Your task to perform on an android device: remove spam from my inbox in the gmail app Image 0: 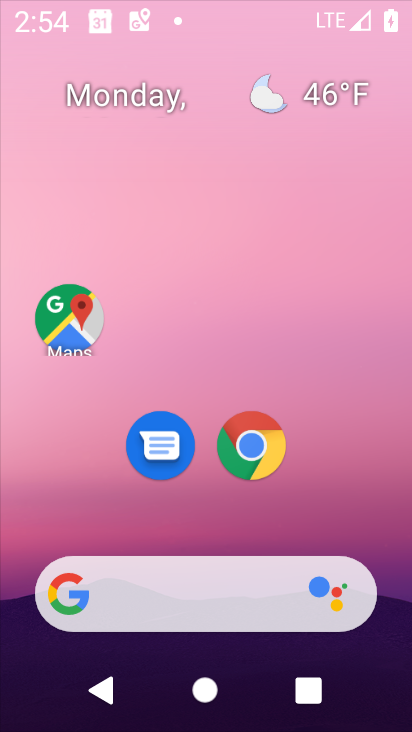
Step 0: drag from (339, 381) to (311, 164)
Your task to perform on an android device: remove spam from my inbox in the gmail app Image 1: 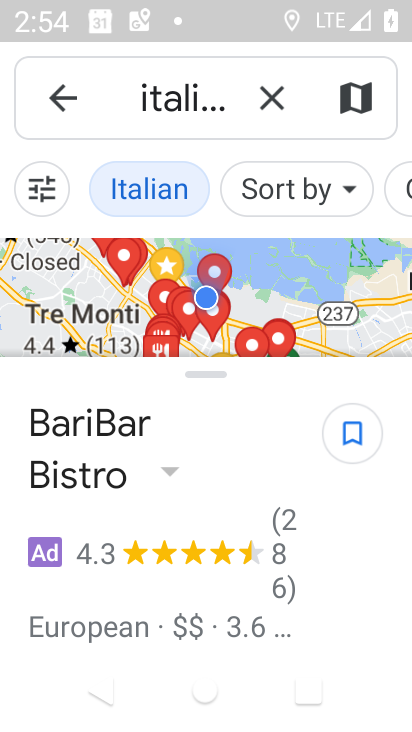
Step 1: press home button
Your task to perform on an android device: remove spam from my inbox in the gmail app Image 2: 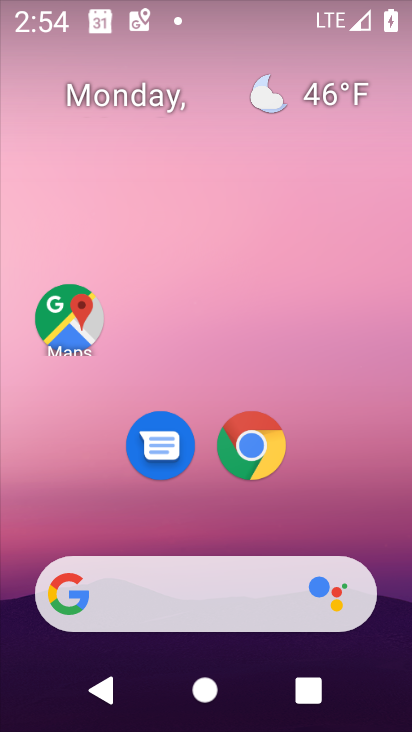
Step 2: drag from (302, 501) to (343, 121)
Your task to perform on an android device: remove spam from my inbox in the gmail app Image 3: 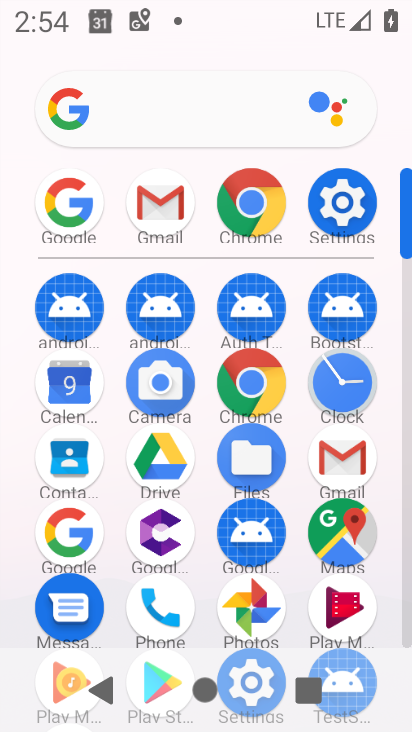
Step 3: drag from (295, 534) to (277, 220)
Your task to perform on an android device: remove spam from my inbox in the gmail app Image 4: 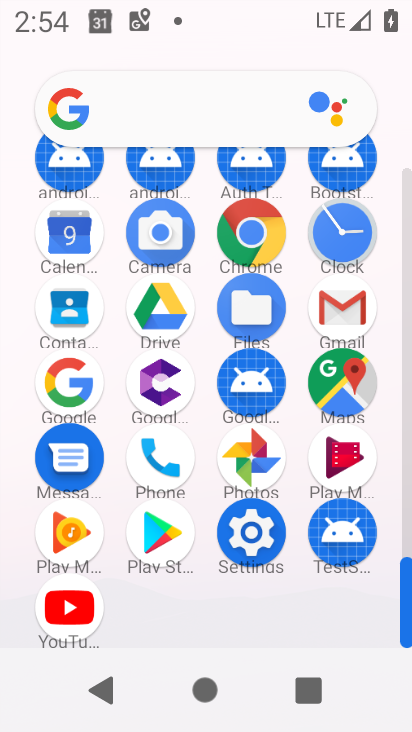
Step 4: click (352, 308)
Your task to perform on an android device: remove spam from my inbox in the gmail app Image 5: 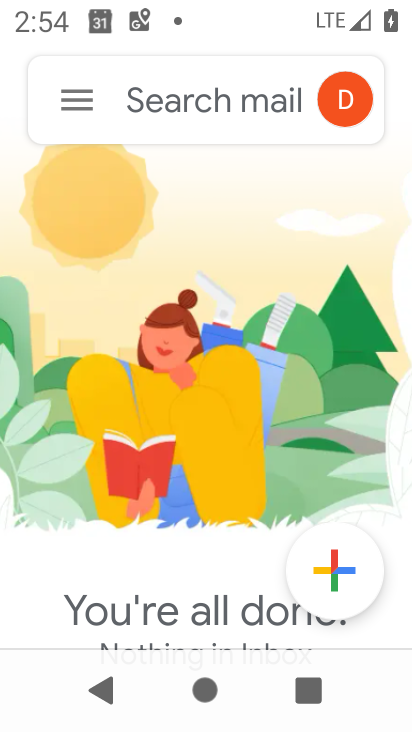
Step 5: click (68, 106)
Your task to perform on an android device: remove spam from my inbox in the gmail app Image 6: 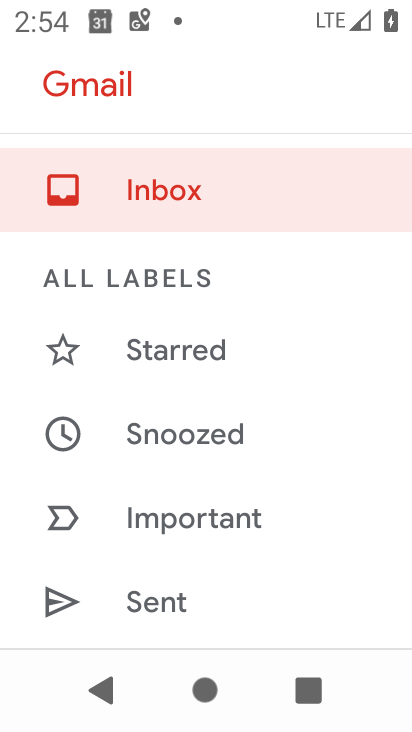
Step 6: drag from (181, 580) to (135, 147)
Your task to perform on an android device: remove spam from my inbox in the gmail app Image 7: 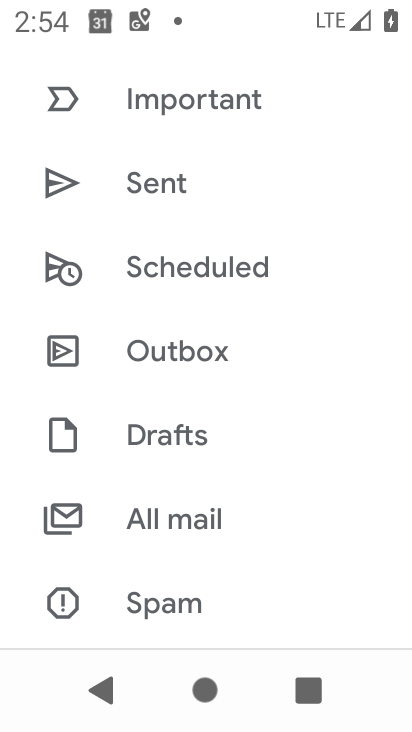
Step 7: drag from (218, 592) to (201, 237)
Your task to perform on an android device: remove spam from my inbox in the gmail app Image 8: 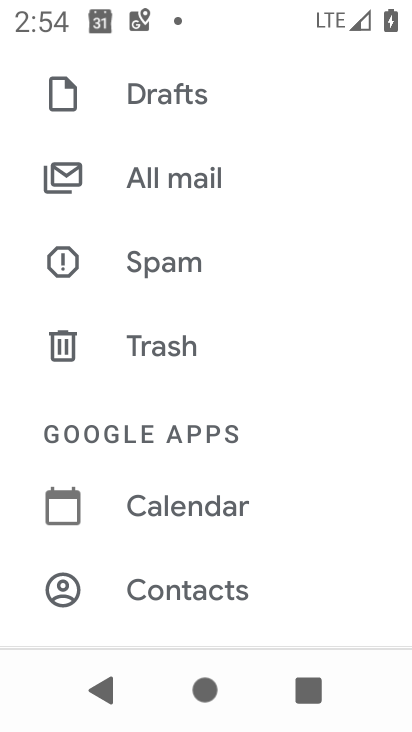
Step 8: click (198, 281)
Your task to perform on an android device: remove spam from my inbox in the gmail app Image 9: 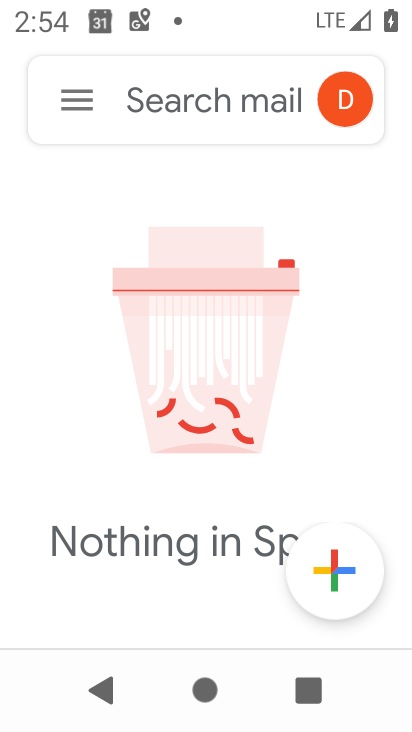
Step 9: task complete